Your task to perform on an android device: Show the shopping cart on newegg.com. Add "logitech g933" to the cart on newegg.com, then select checkout. Image 0: 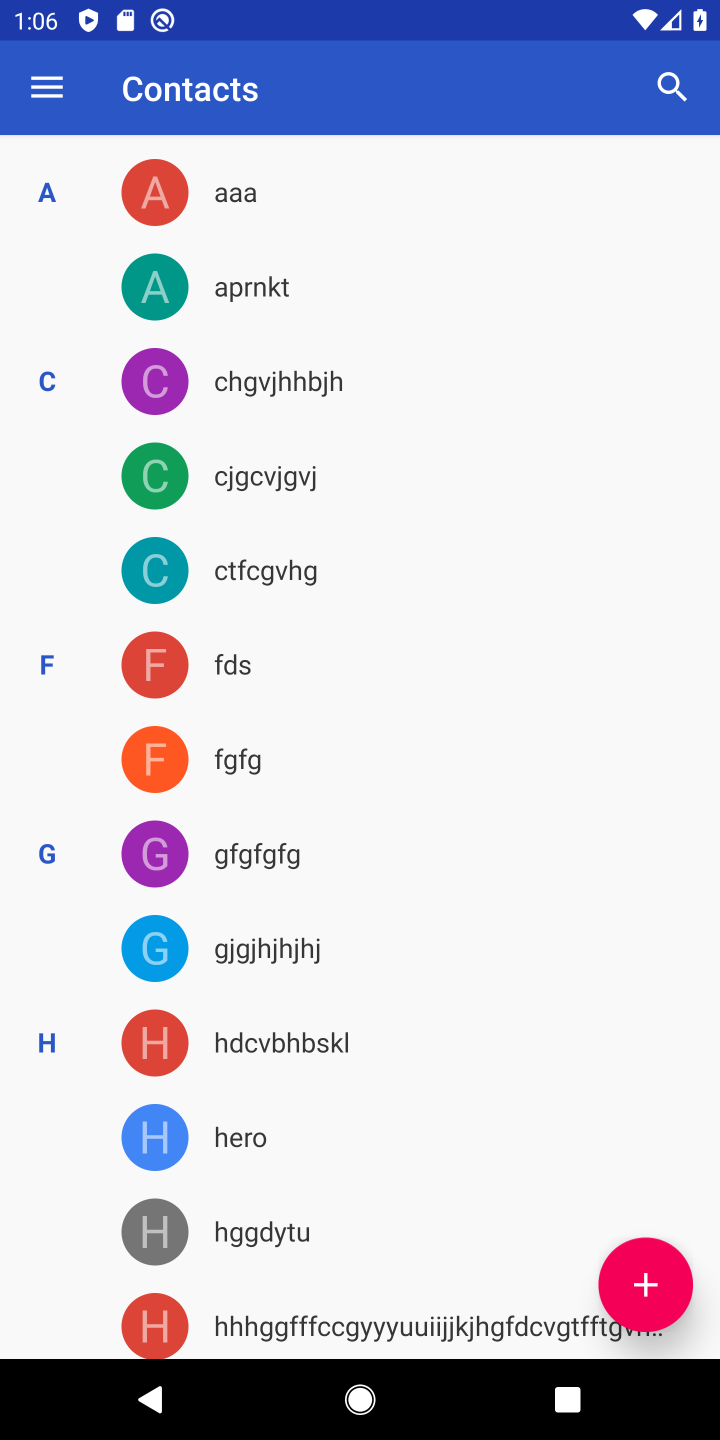
Step 0: press home button
Your task to perform on an android device: Show the shopping cart on newegg.com. Add "logitech g933" to the cart on newegg.com, then select checkout. Image 1: 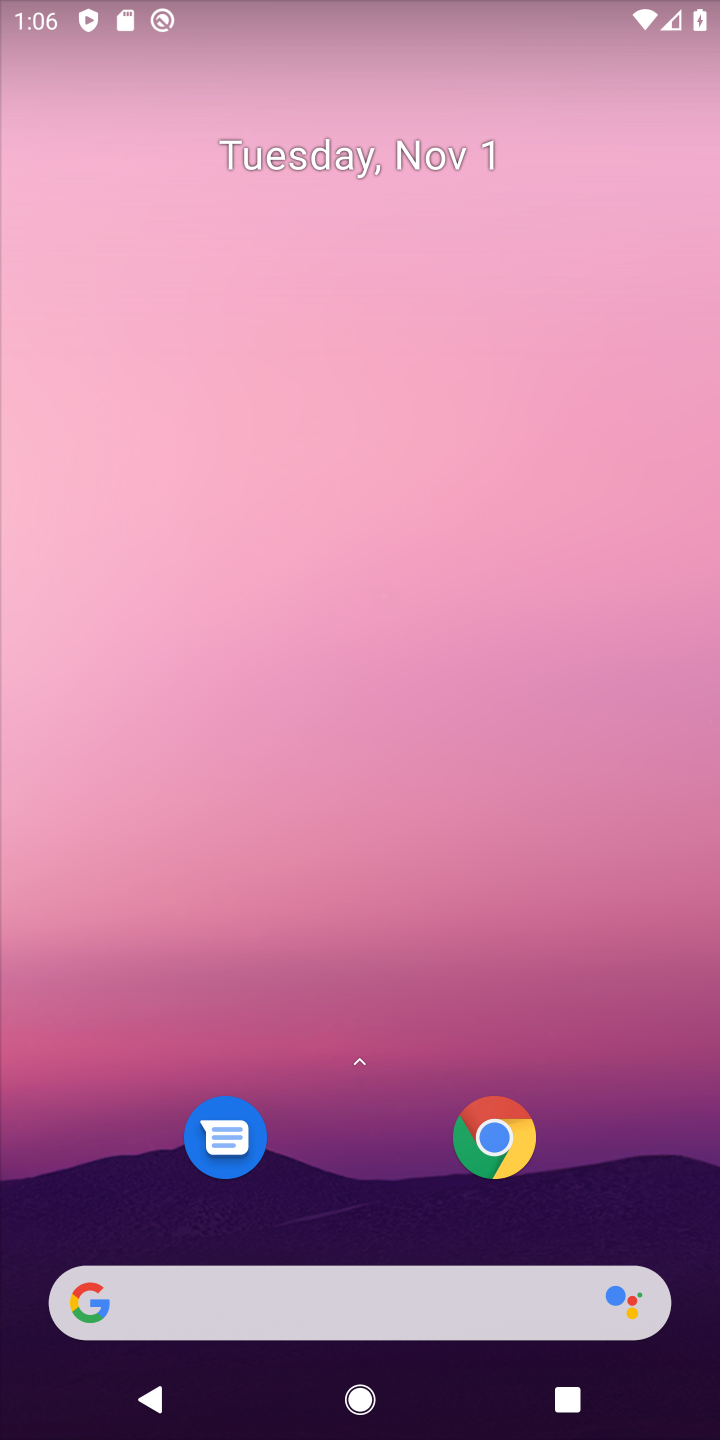
Step 1: click (200, 1289)
Your task to perform on an android device: Show the shopping cart on newegg.com. Add "logitech g933" to the cart on newegg.com, then select checkout. Image 2: 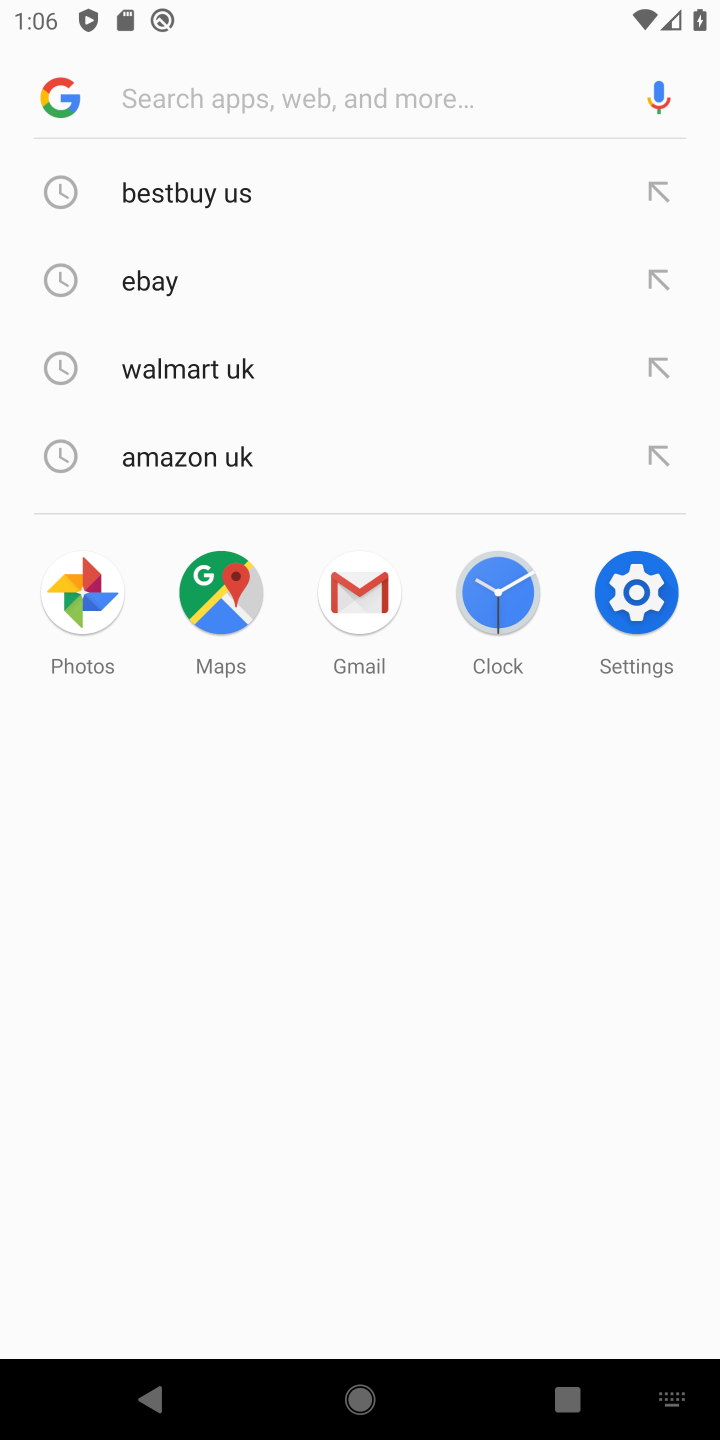
Step 2: type "newegg"
Your task to perform on an android device: Show the shopping cart on newegg.com. Add "logitech g933" to the cart on newegg.com, then select checkout. Image 3: 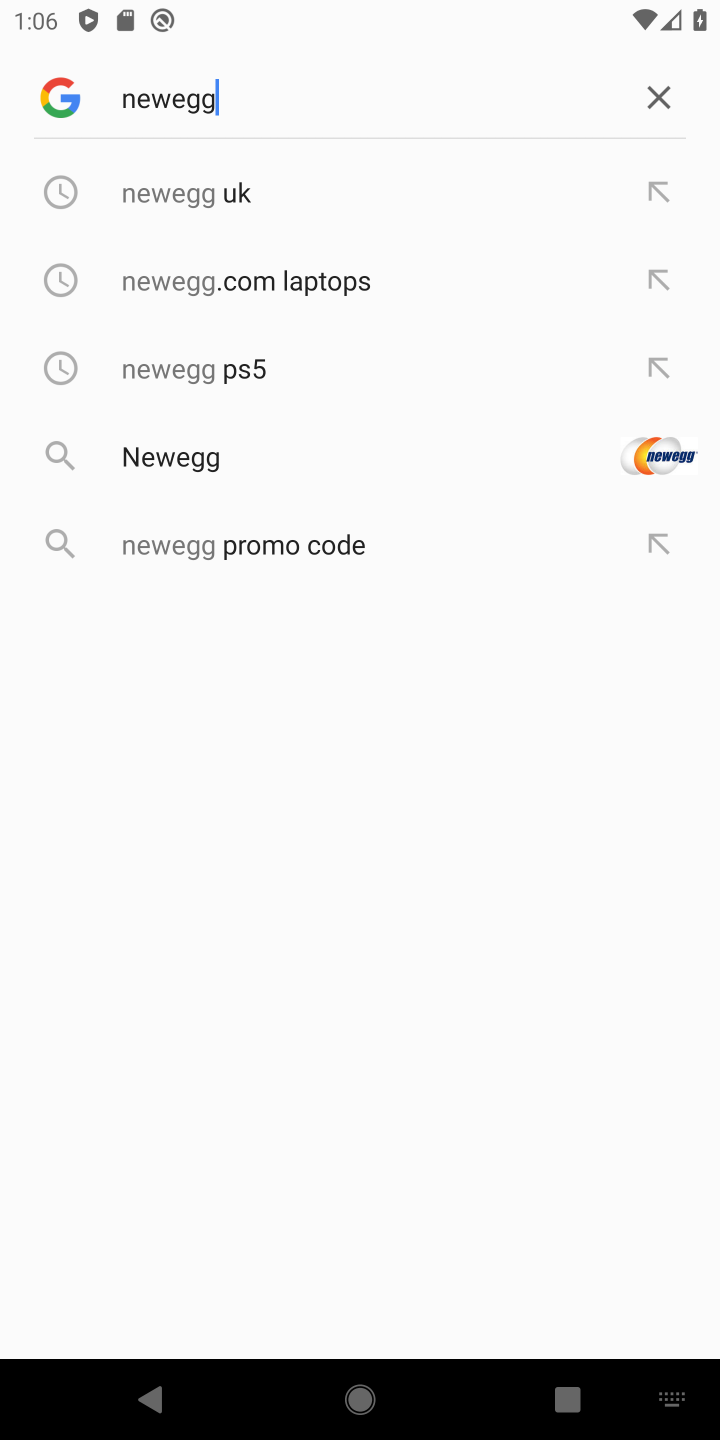
Step 3: click (428, 181)
Your task to perform on an android device: Show the shopping cart on newegg.com. Add "logitech g933" to the cart on newegg.com, then select checkout. Image 4: 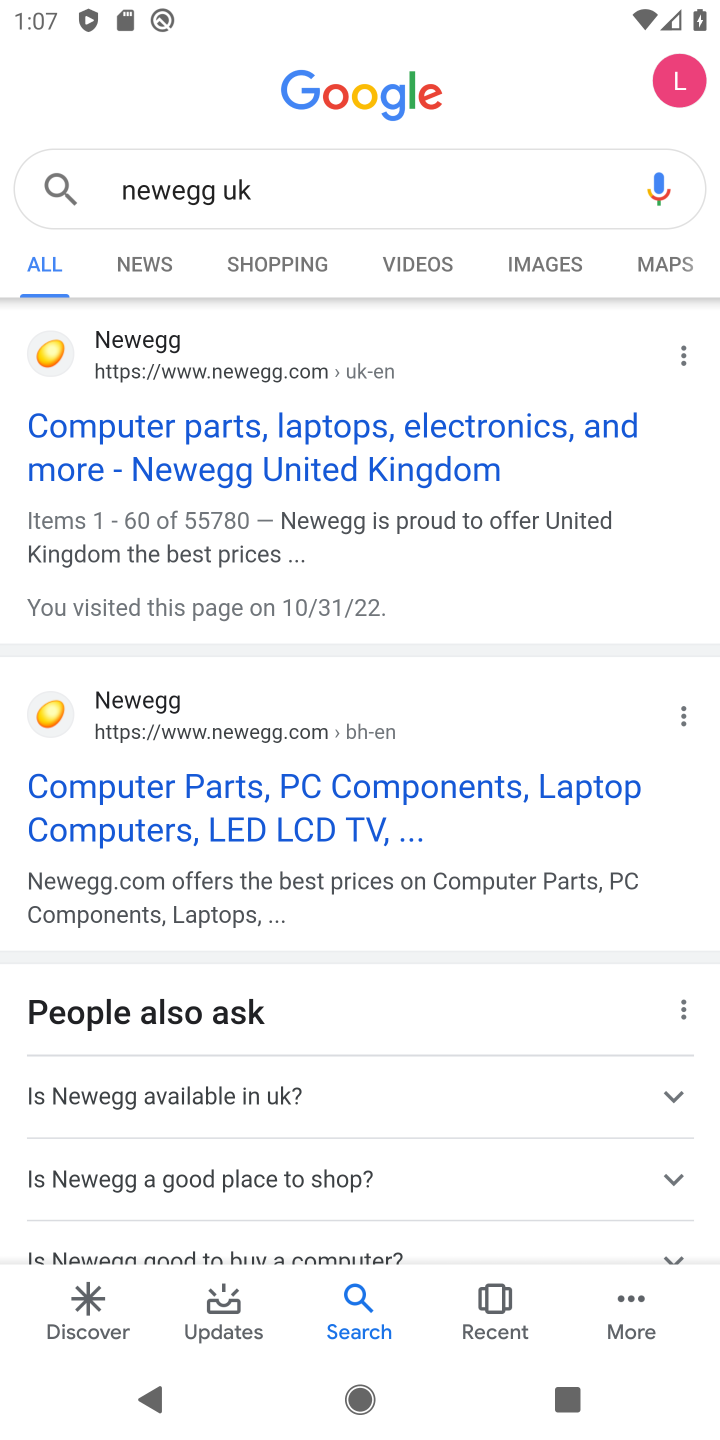
Step 4: click (305, 429)
Your task to perform on an android device: Show the shopping cart on newegg.com. Add "logitech g933" to the cart on newegg.com, then select checkout. Image 5: 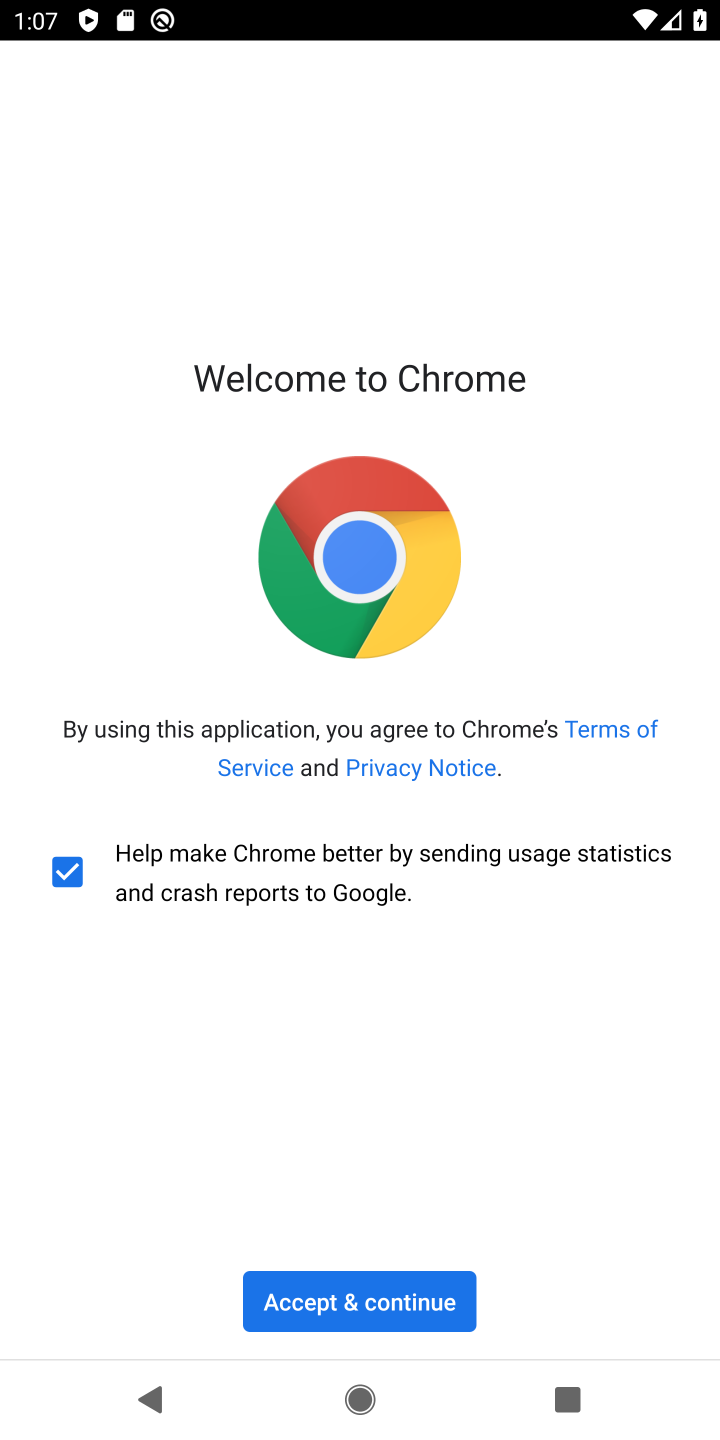
Step 5: task complete